Your task to perform on an android device: turn vacation reply on in the gmail app Image 0: 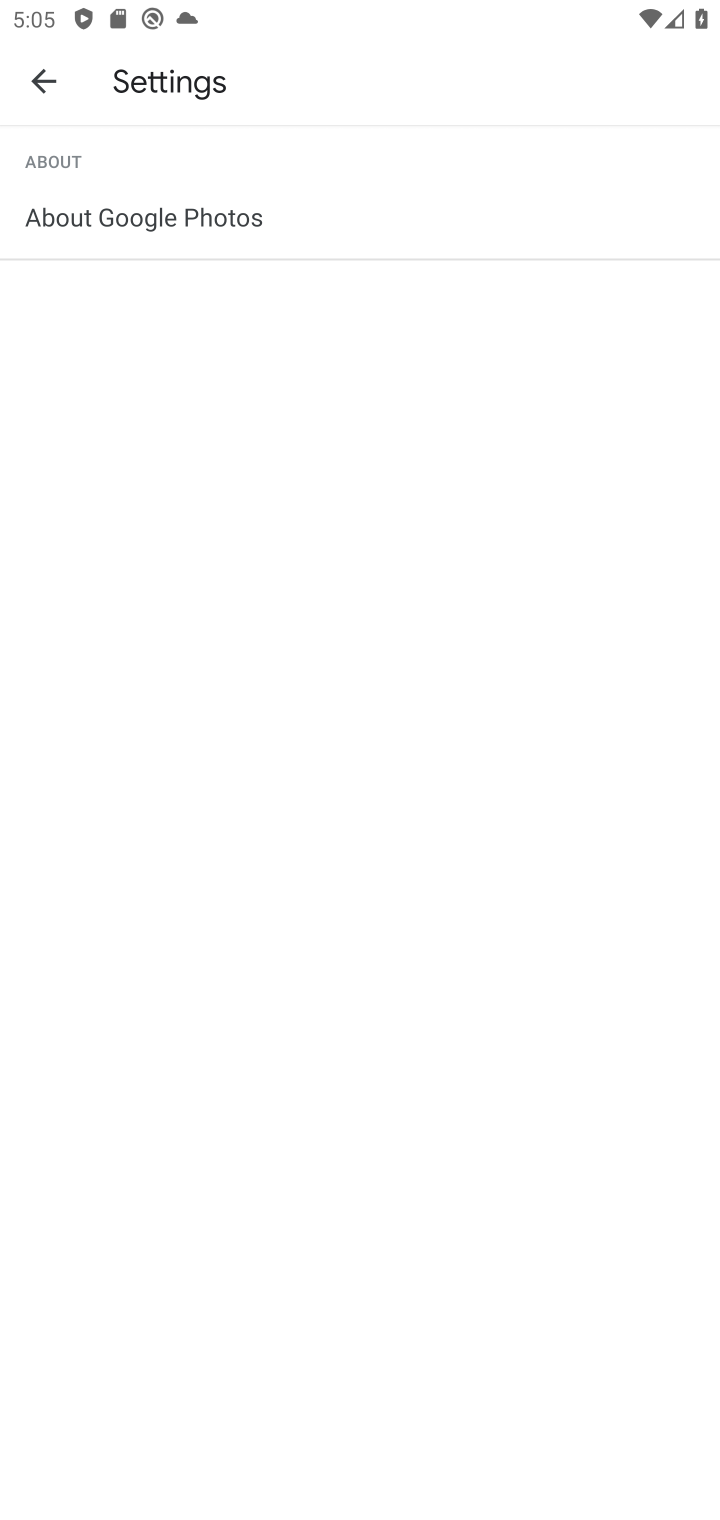
Step 0: press back button
Your task to perform on an android device: turn vacation reply on in the gmail app Image 1: 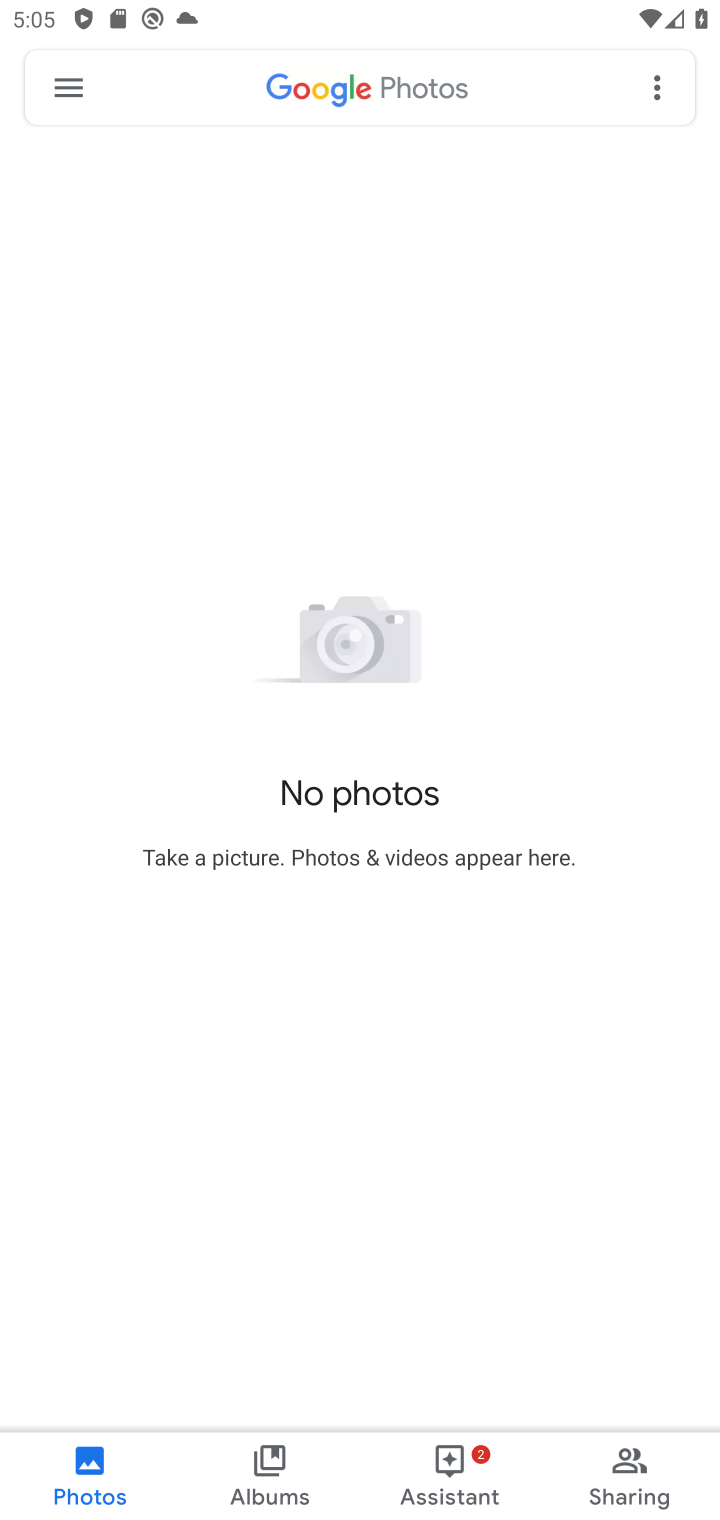
Step 1: press back button
Your task to perform on an android device: turn vacation reply on in the gmail app Image 2: 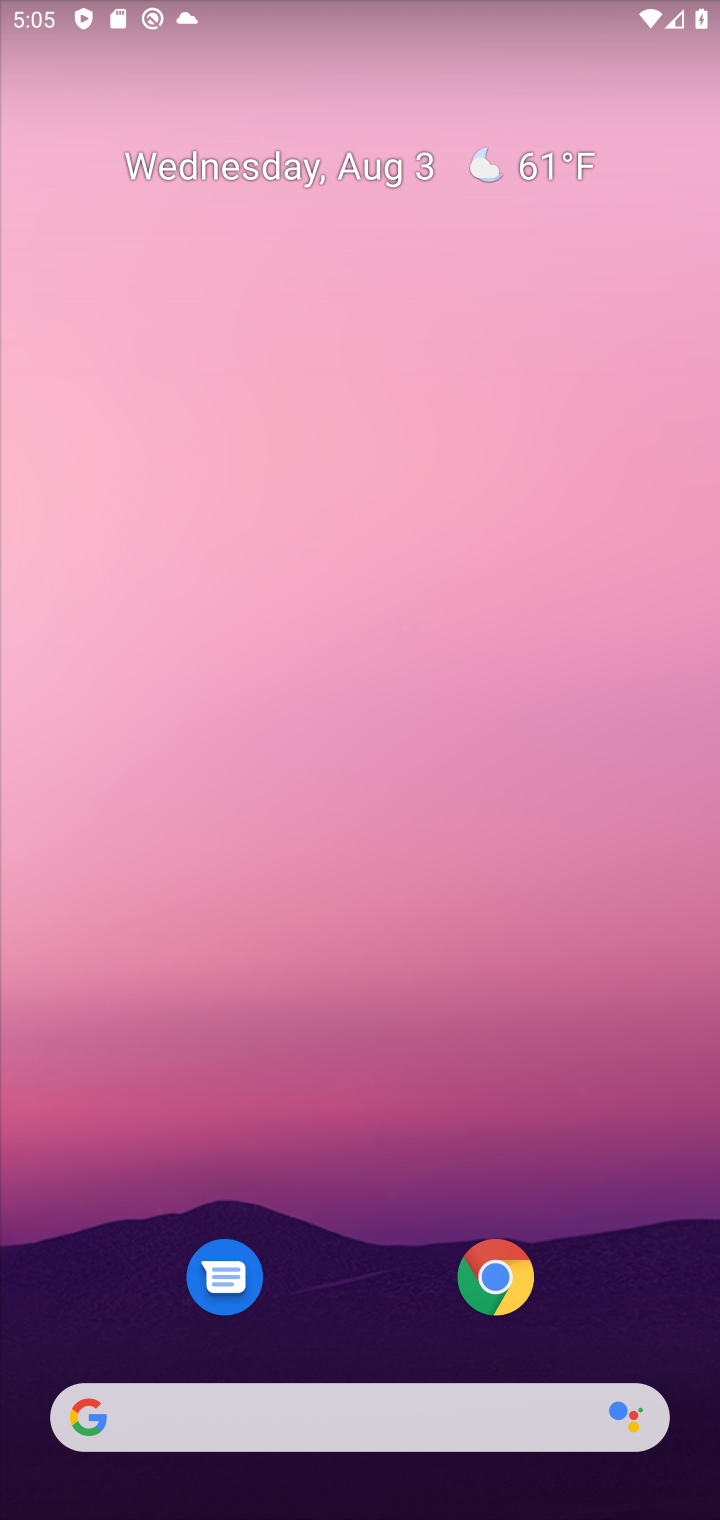
Step 2: drag from (355, 1114) to (512, 306)
Your task to perform on an android device: turn vacation reply on in the gmail app Image 3: 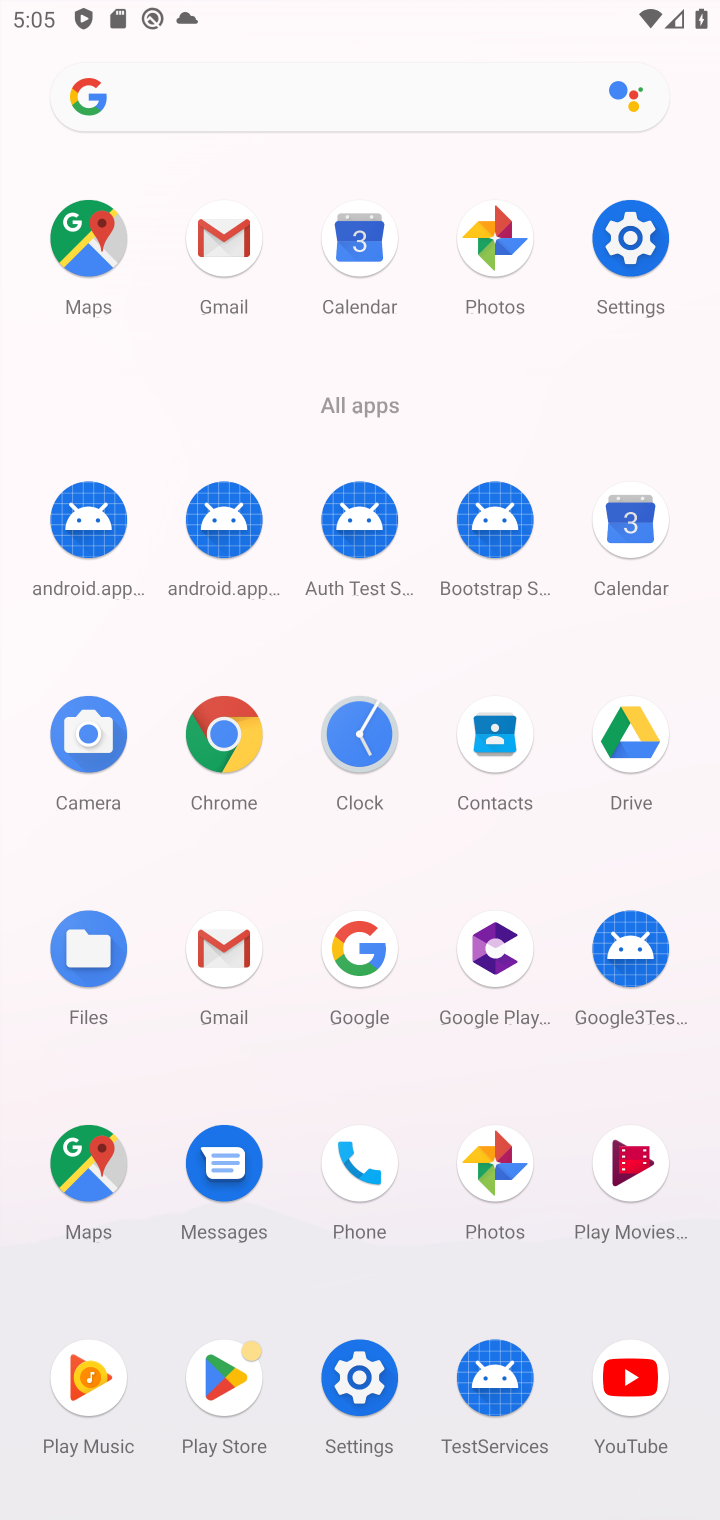
Step 3: click (222, 228)
Your task to perform on an android device: turn vacation reply on in the gmail app Image 4: 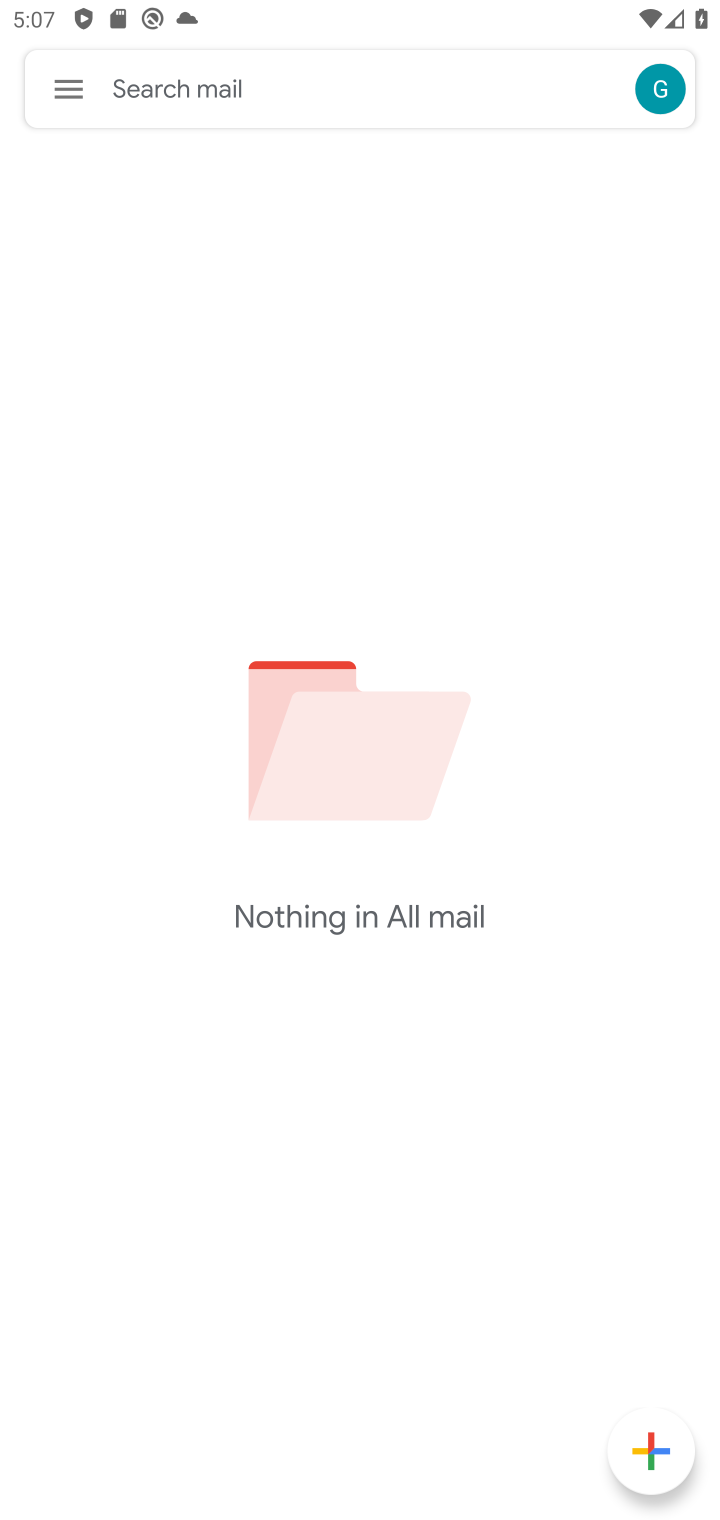
Step 4: click (88, 67)
Your task to perform on an android device: turn vacation reply on in the gmail app Image 5: 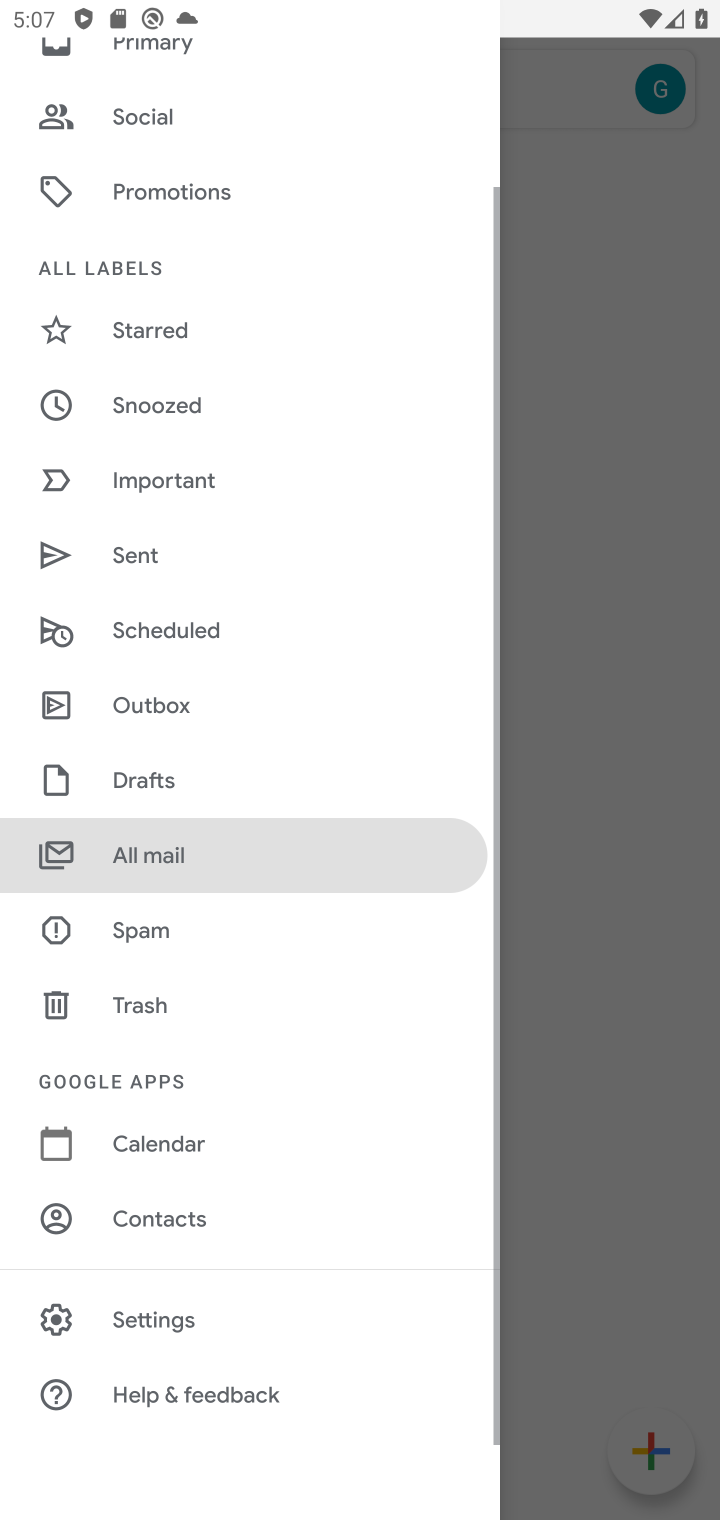
Step 5: click (190, 1296)
Your task to perform on an android device: turn vacation reply on in the gmail app Image 6: 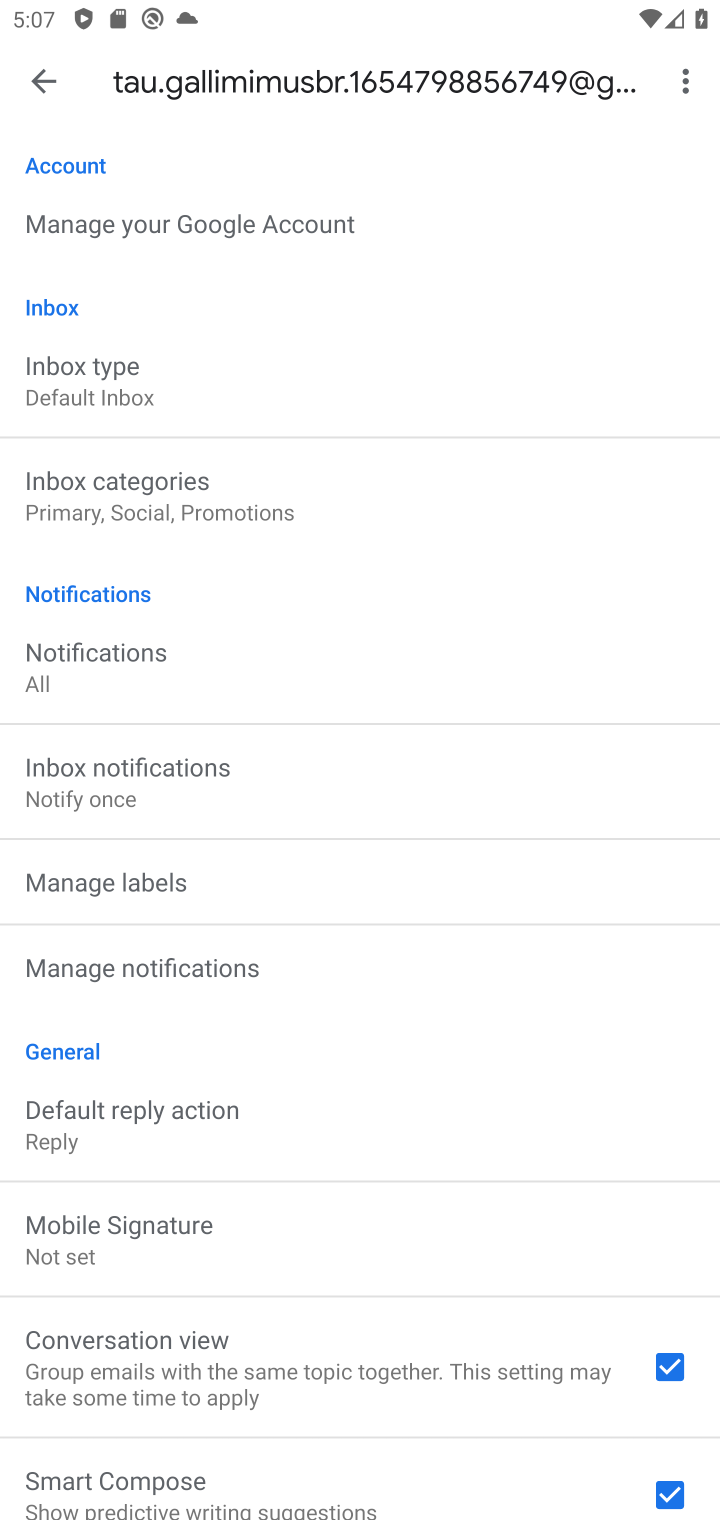
Step 6: drag from (191, 1438) to (442, 266)
Your task to perform on an android device: turn vacation reply on in the gmail app Image 7: 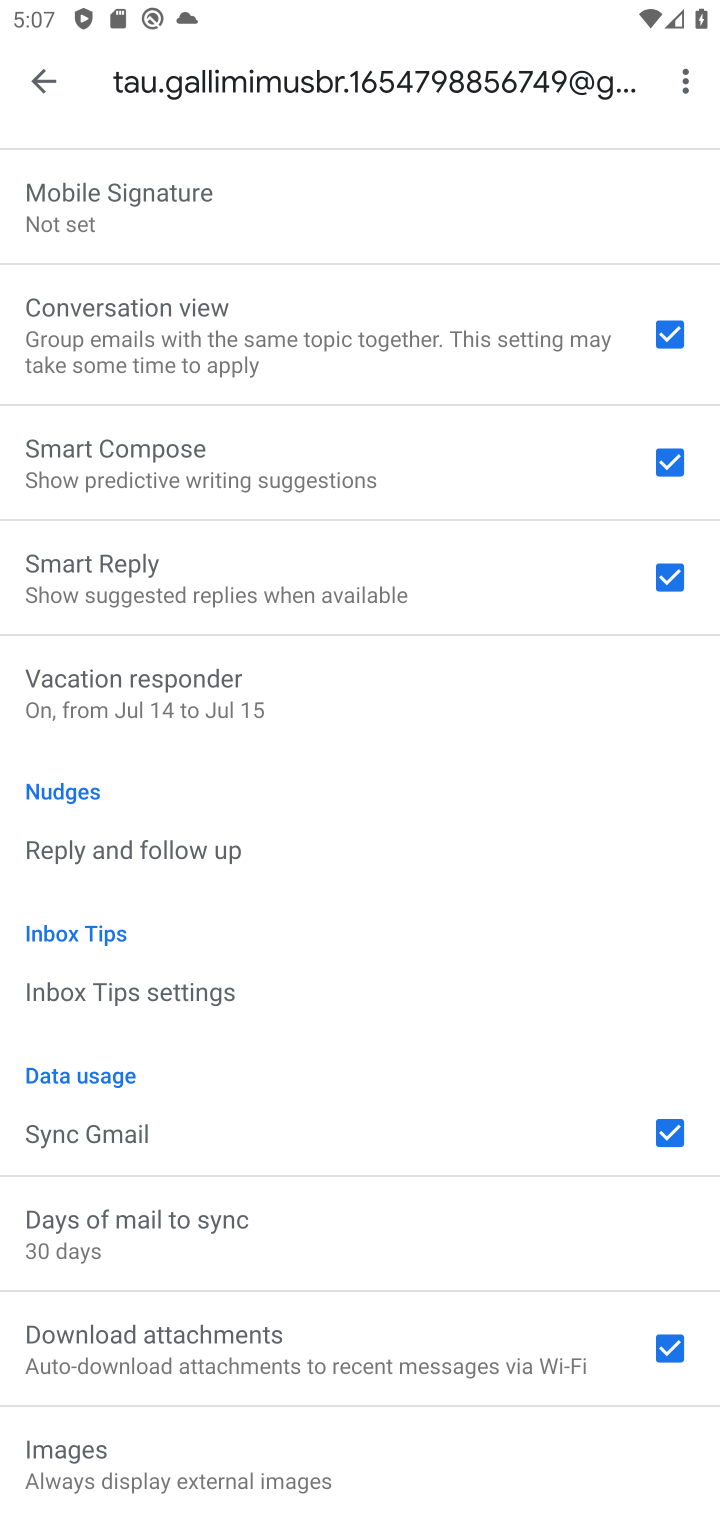
Step 7: click (145, 688)
Your task to perform on an android device: turn vacation reply on in the gmail app Image 8: 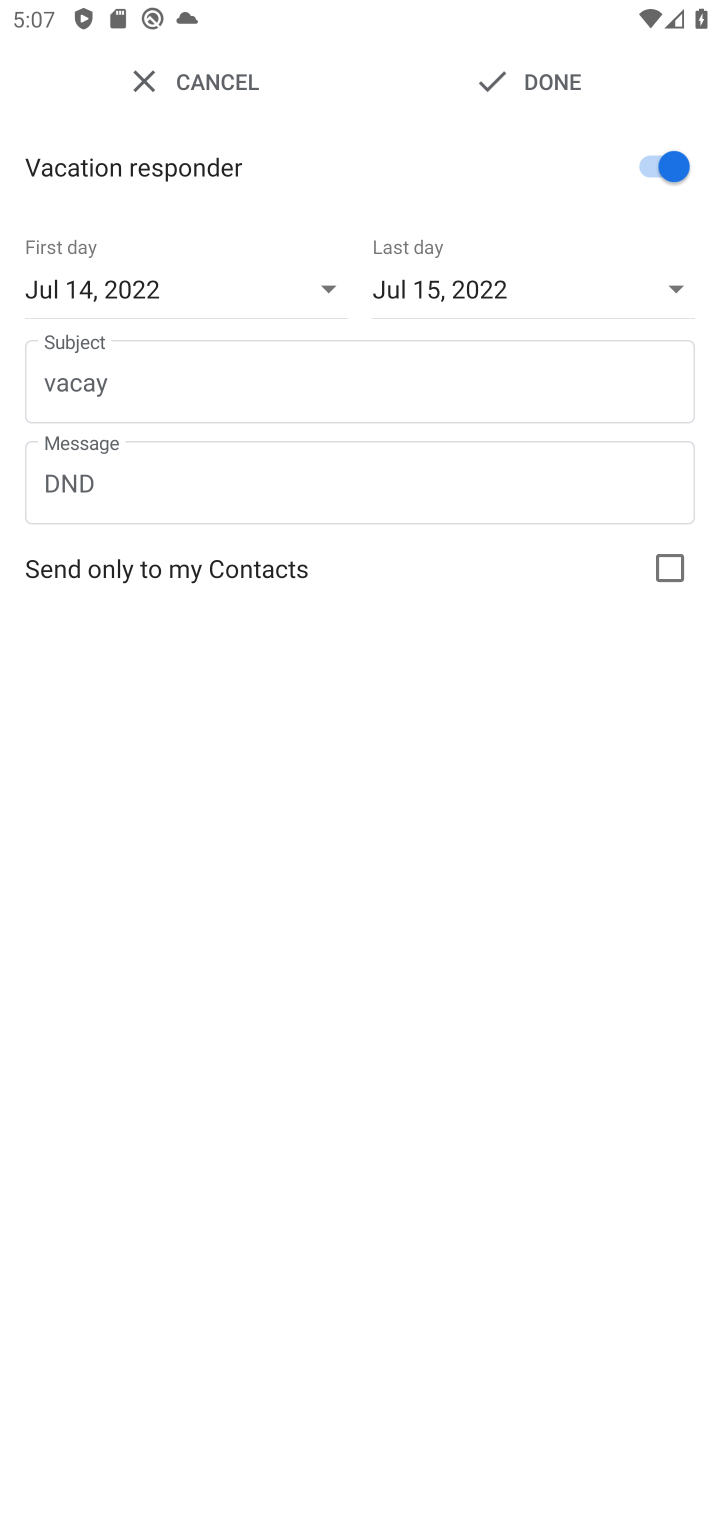
Step 8: task complete